Your task to perform on an android device: add a contact Image 0: 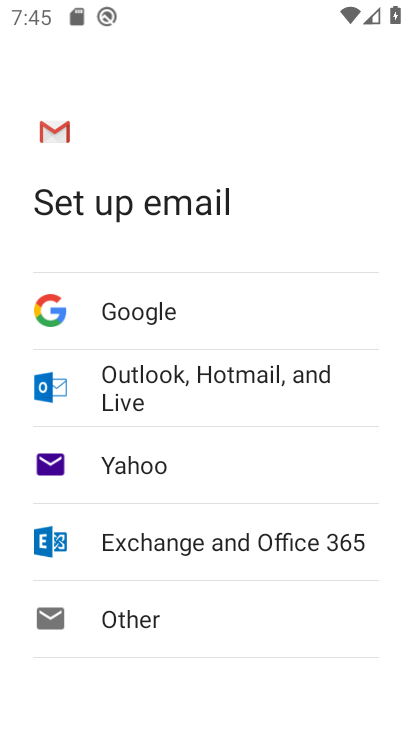
Step 0: press home button
Your task to perform on an android device: add a contact Image 1: 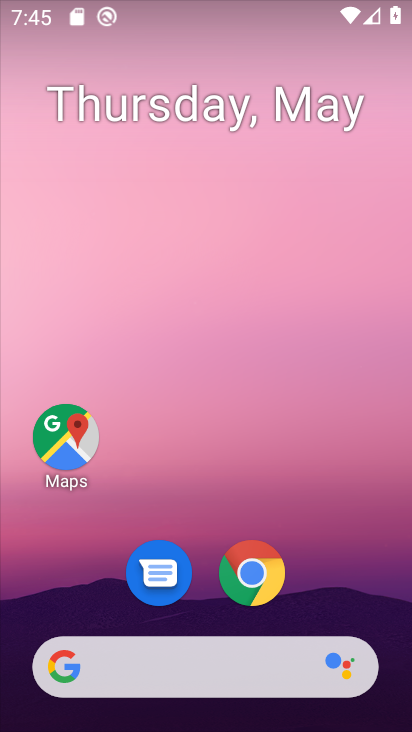
Step 1: drag from (187, 621) to (160, 29)
Your task to perform on an android device: add a contact Image 2: 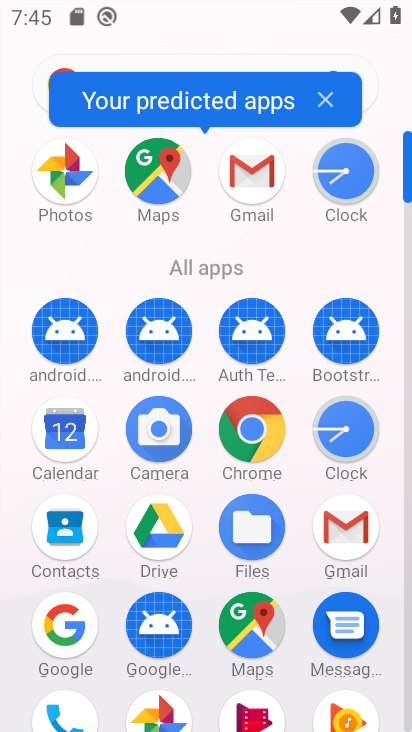
Step 2: drag from (107, 666) to (82, 305)
Your task to perform on an android device: add a contact Image 3: 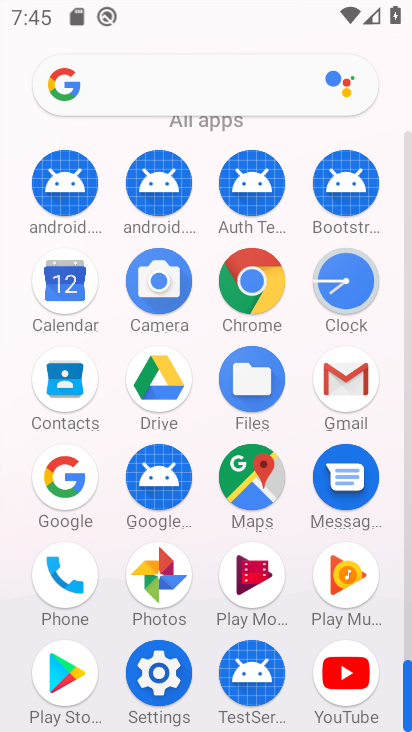
Step 3: click (66, 580)
Your task to perform on an android device: add a contact Image 4: 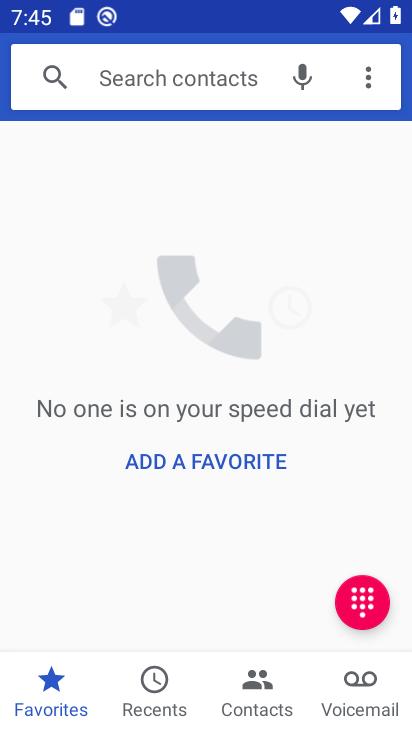
Step 4: click (259, 683)
Your task to perform on an android device: add a contact Image 5: 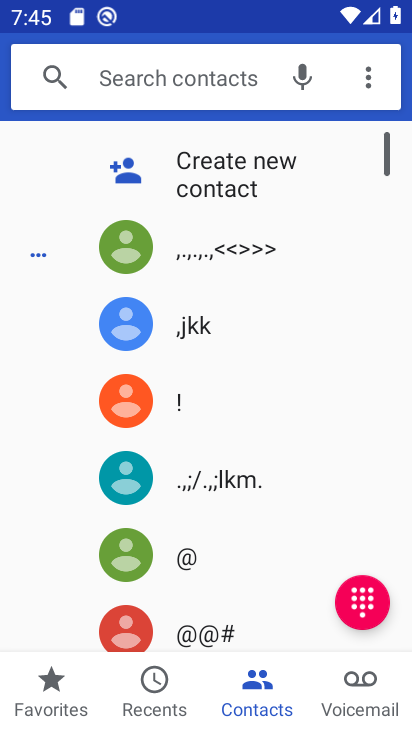
Step 5: click (242, 169)
Your task to perform on an android device: add a contact Image 6: 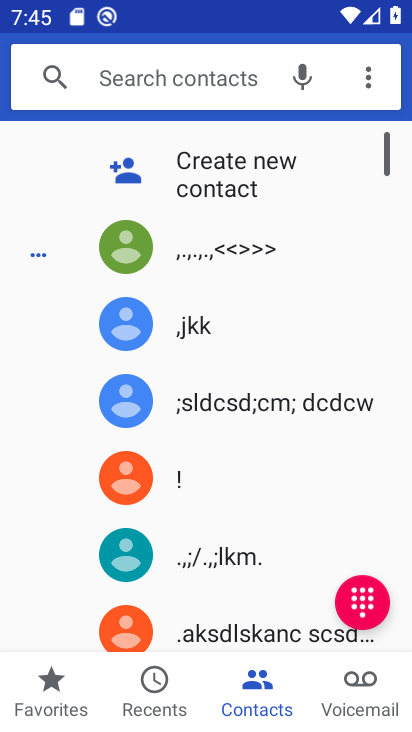
Step 6: click (242, 169)
Your task to perform on an android device: add a contact Image 7: 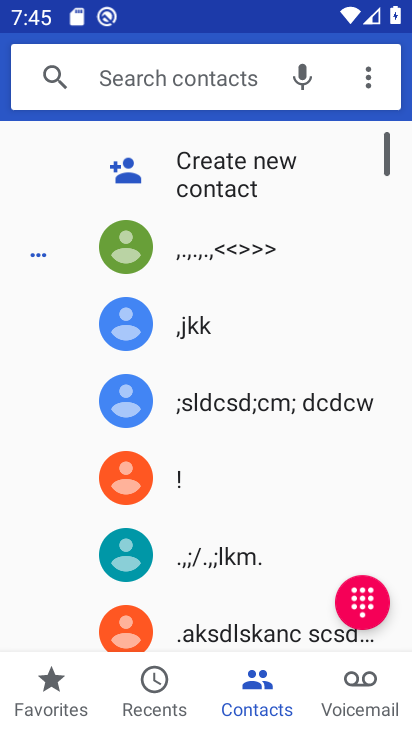
Step 7: click (305, 183)
Your task to perform on an android device: add a contact Image 8: 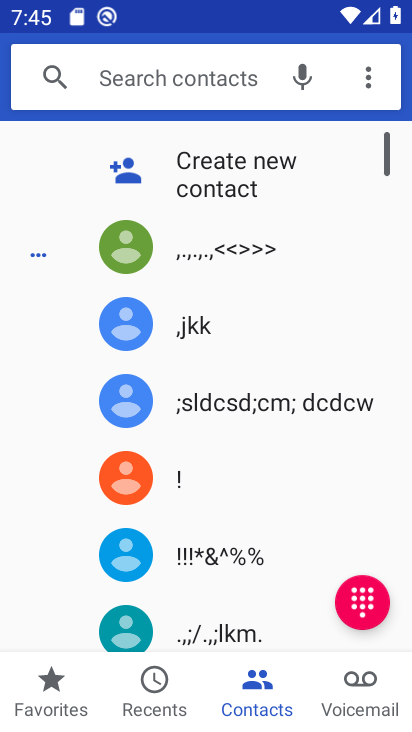
Step 8: click (135, 162)
Your task to perform on an android device: add a contact Image 9: 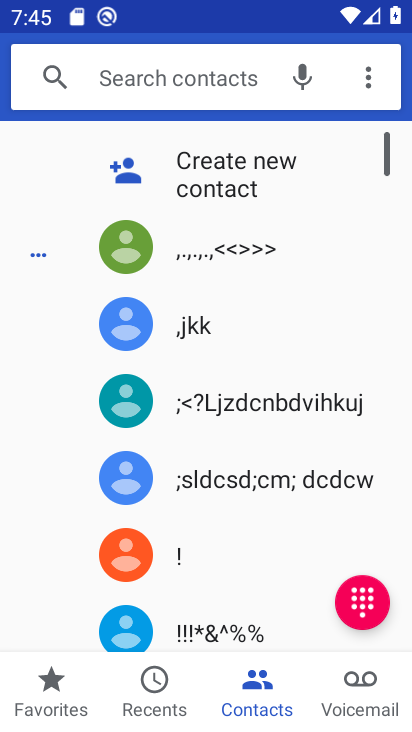
Step 9: drag from (195, 388) to (194, 461)
Your task to perform on an android device: add a contact Image 10: 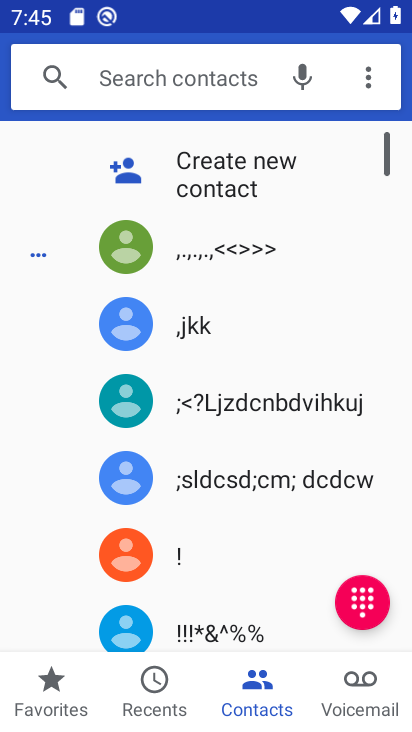
Step 10: click (196, 169)
Your task to perform on an android device: add a contact Image 11: 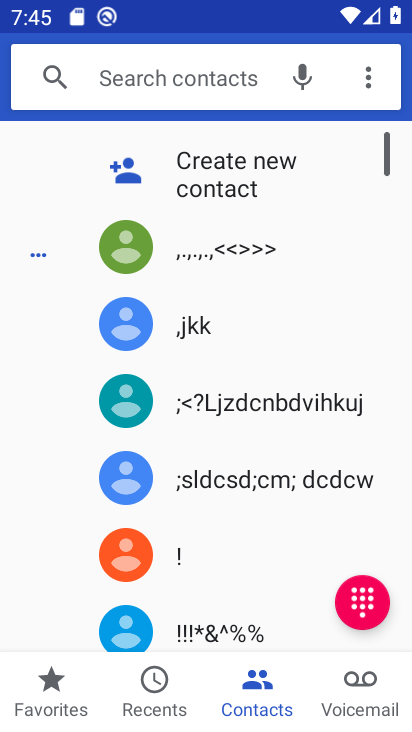
Step 11: click (193, 169)
Your task to perform on an android device: add a contact Image 12: 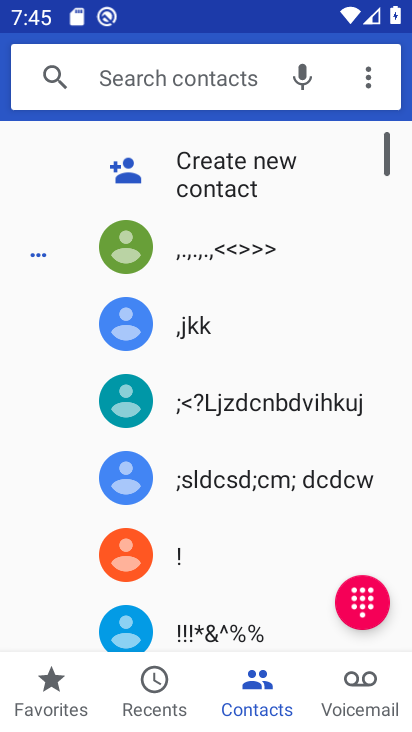
Step 12: click (193, 169)
Your task to perform on an android device: add a contact Image 13: 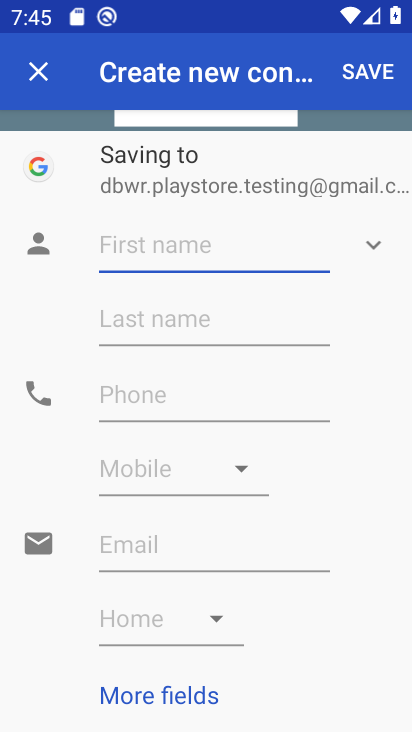
Step 13: type "hony"
Your task to perform on an android device: add a contact Image 14: 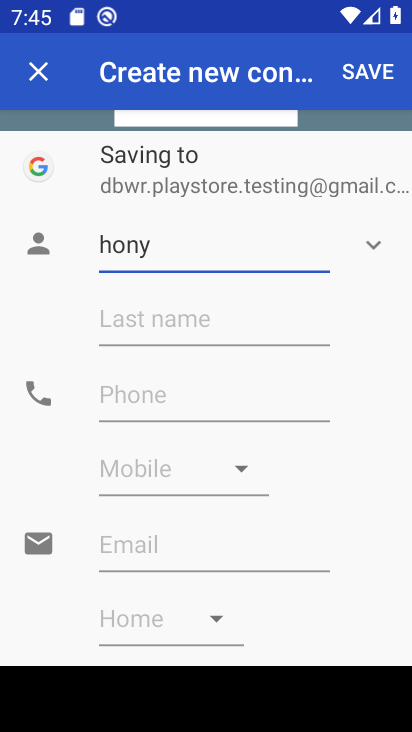
Step 14: click (158, 384)
Your task to perform on an android device: add a contact Image 15: 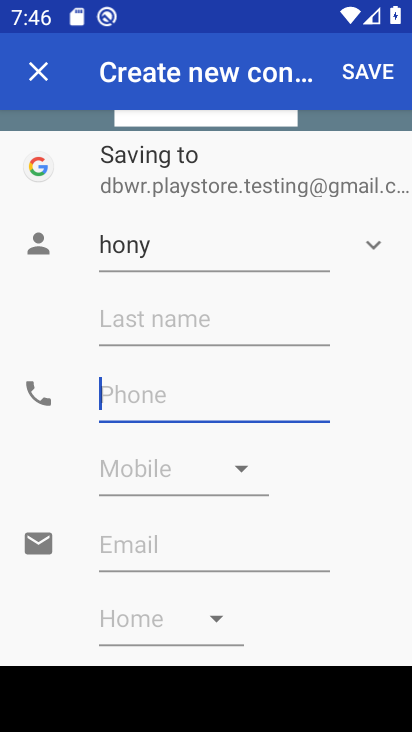
Step 15: type "89899"
Your task to perform on an android device: add a contact Image 16: 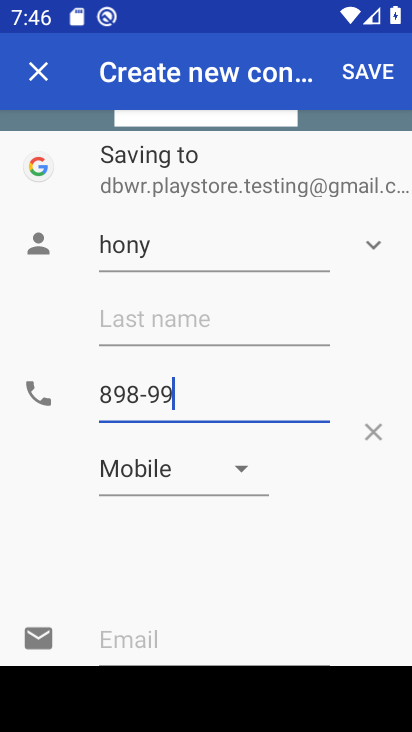
Step 16: type ""
Your task to perform on an android device: add a contact Image 17: 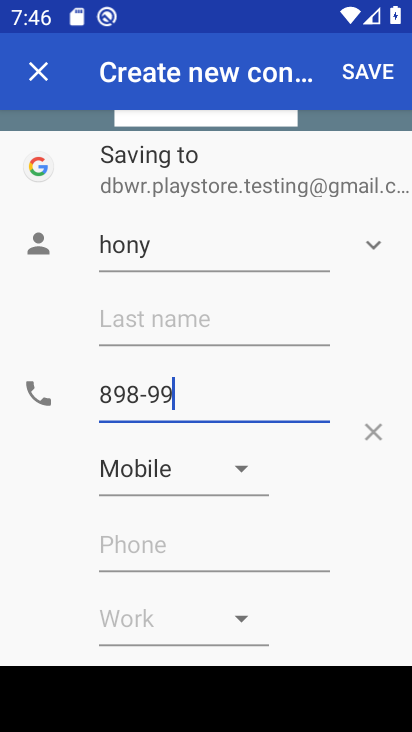
Step 17: click (365, 77)
Your task to perform on an android device: add a contact Image 18: 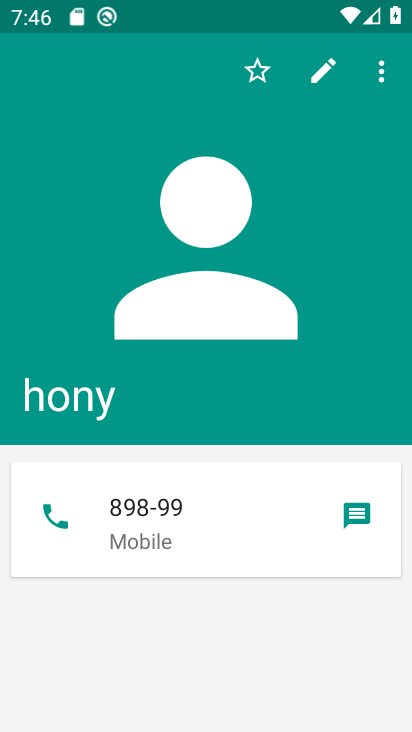
Step 18: task complete